Your task to perform on an android device: turn pop-ups off in chrome Image 0: 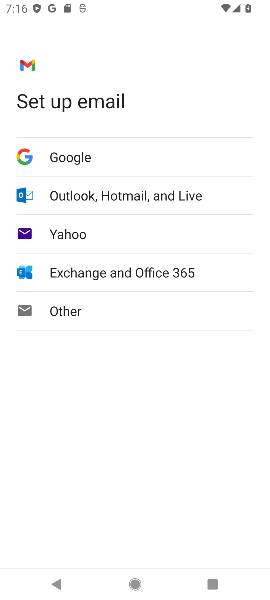
Step 0: press home button
Your task to perform on an android device: turn pop-ups off in chrome Image 1: 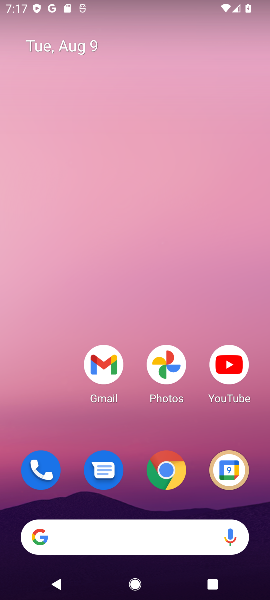
Step 1: click (177, 465)
Your task to perform on an android device: turn pop-ups off in chrome Image 2: 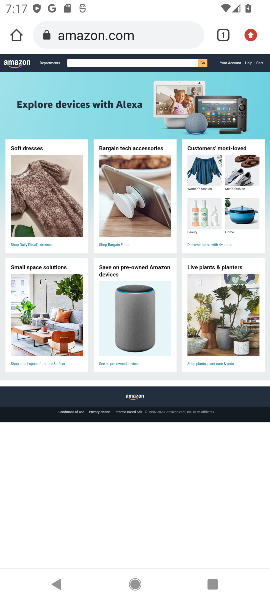
Step 2: click (242, 37)
Your task to perform on an android device: turn pop-ups off in chrome Image 3: 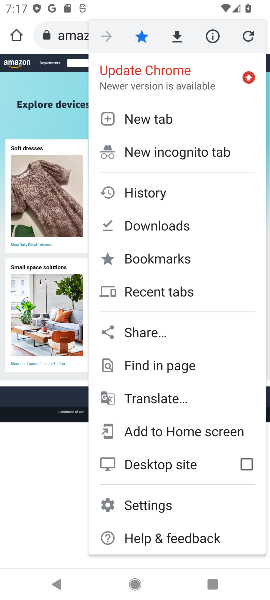
Step 3: click (160, 506)
Your task to perform on an android device: turn pop-ups off in chrome Image 4: 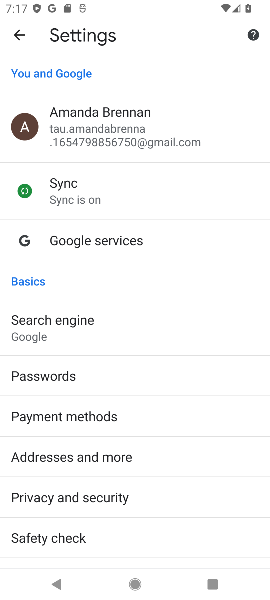
Step 4: drag from (176, 471) to (213, 57)
Your task to perform on an android device: turn pop-ups off in chrome Image 5: 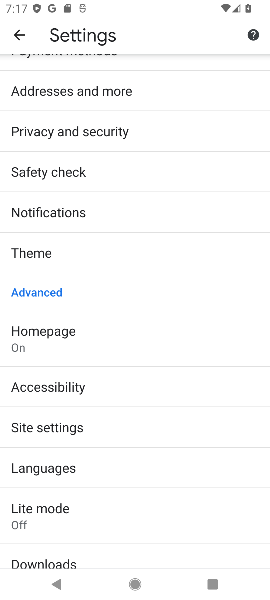
Step 5: click (92, 419)
Your task to perform on an android device: turn pop-ups off in chrome Image 6: 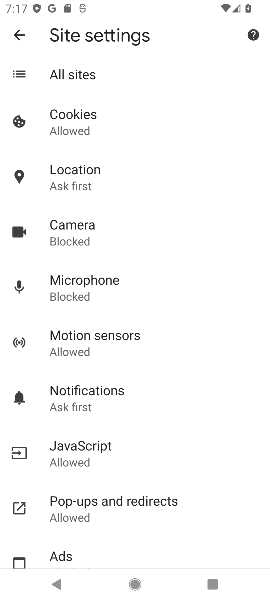
Step 6: click (126, 498)
Your task to perform on an android device: turn pop-ups off in chrome Image 7: 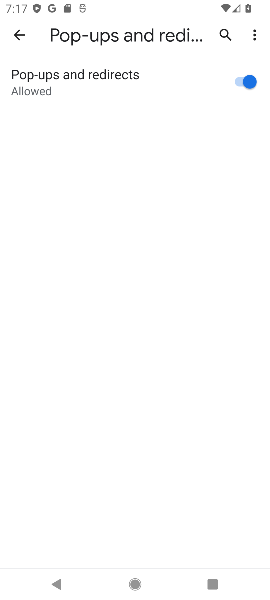
Step 7: click (248, 83)
Your task to perform on an android device: turn pop-ups off in chrome Image 8: 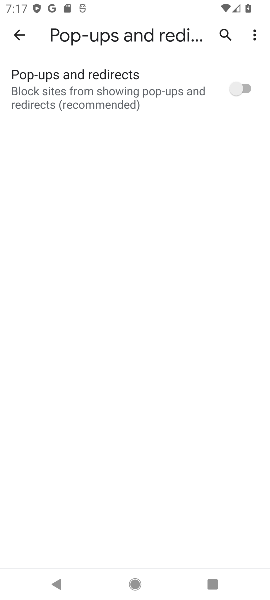
Step 8: task complete